Your task to perform on an android device: delete a single message in the gmail app Image 0: 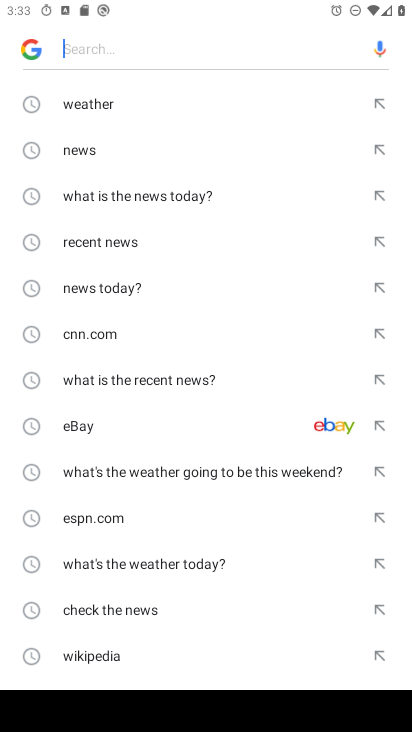
Step 0: press home button
Your task to perform on an android device: delete a single message in the gmail app Image 1: 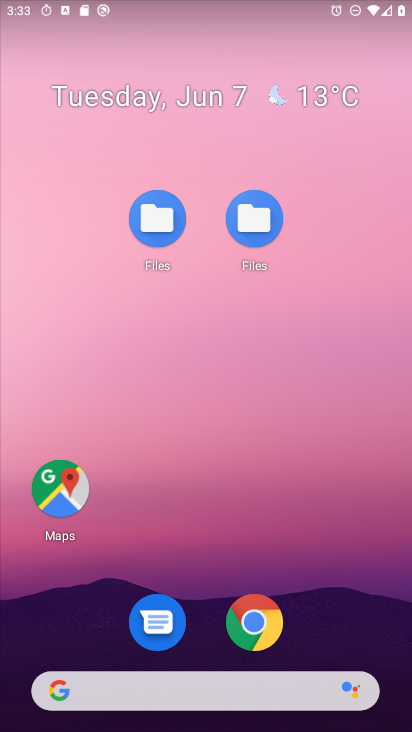
Step 1: drag from (339, 573) to (207, 86)
Your task to perform on an android device: delete a single message in the gmail app Image 2: 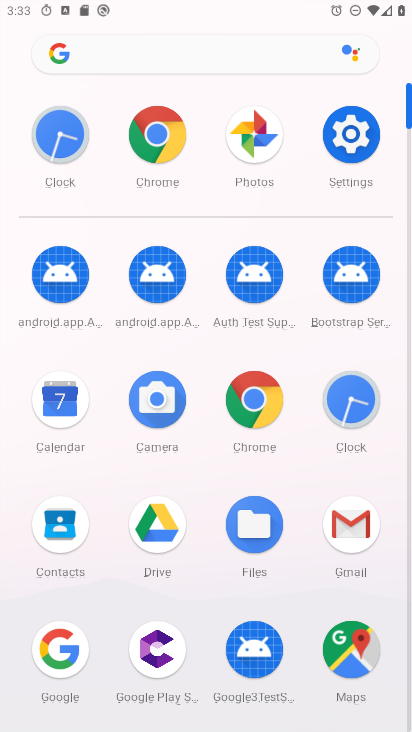
Step 2: click (356, 535)
Your task to perform on an android device: delete a single message in the gmail app Image 3: 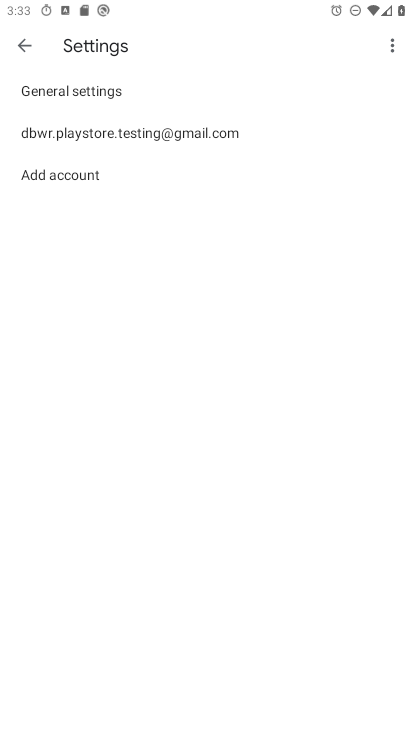
Step 3: click (25, 45)
Your task to perform on an android device: delete a single message in the gmail app Image 4: 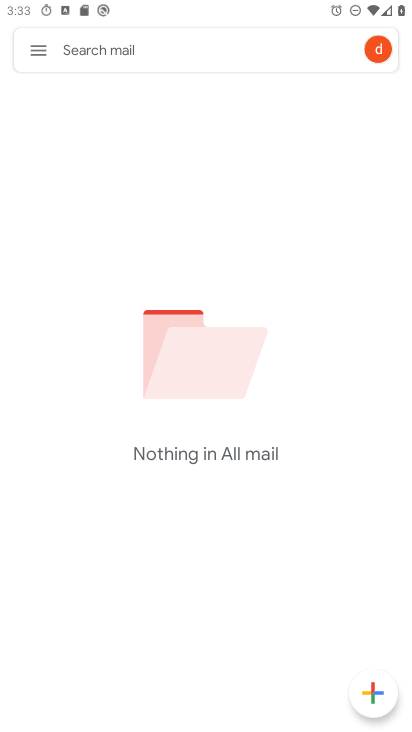
Step 4: task complete